Your task to perform on an android device: change timer sound Image 0: 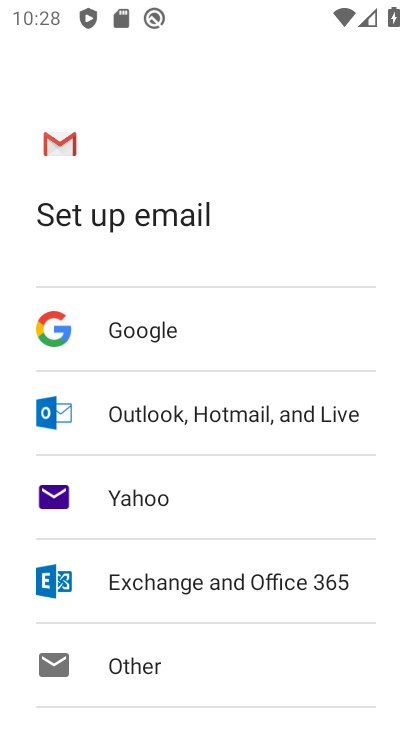
Step 0: press home button
Your task to perform on an android device: change timer sound Image 1: 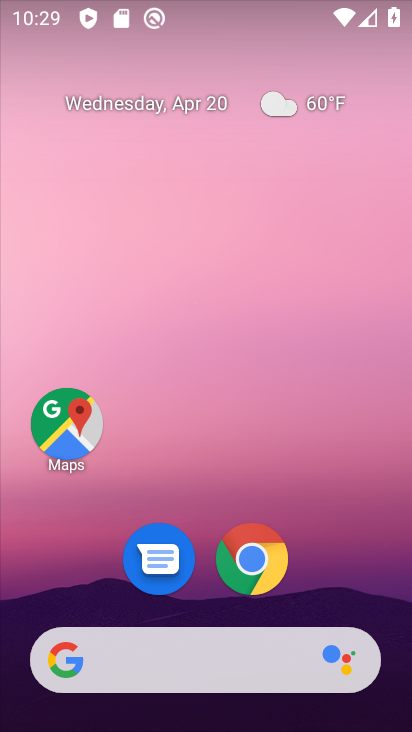
Step 1: drag from (208, 674) to (208, 129)
Your task to perform on an android device: change timer sound Image 2: 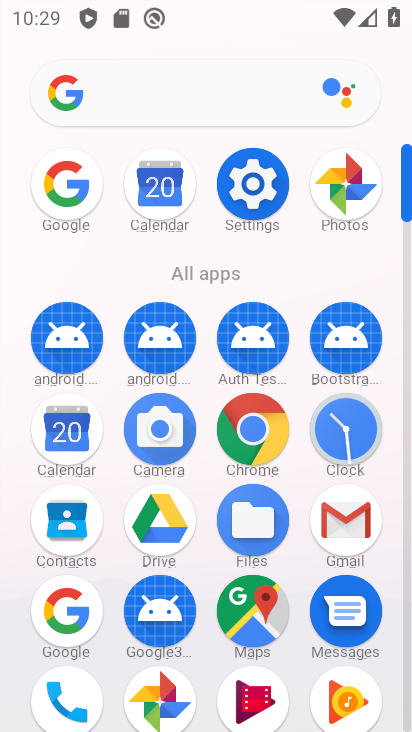
Step 2: click (361, 412)
Your task to perform on an android device: change timer sound Image 3: 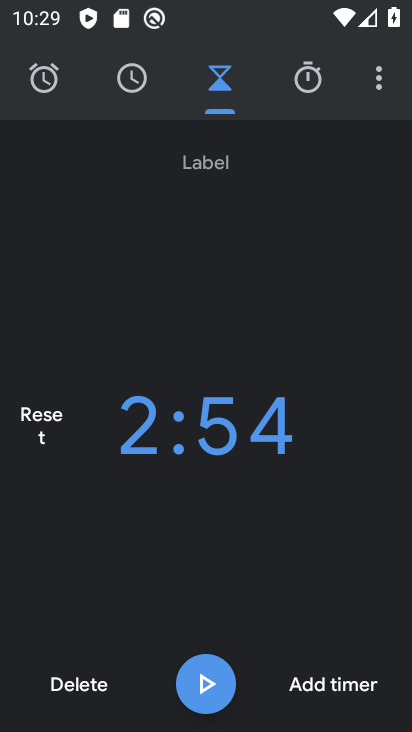
Step 3: click (379, 85)
Your task to perform on an android device: change timer sound Image 4: 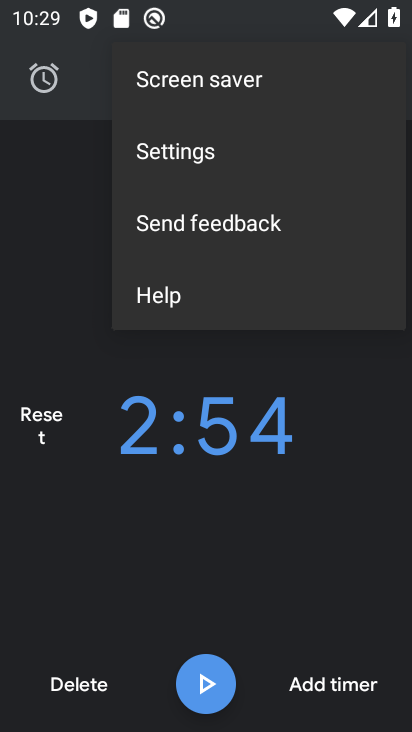
Step 4: click (172, 156)
Your task to perform on an android device: change timer sound Image 5: 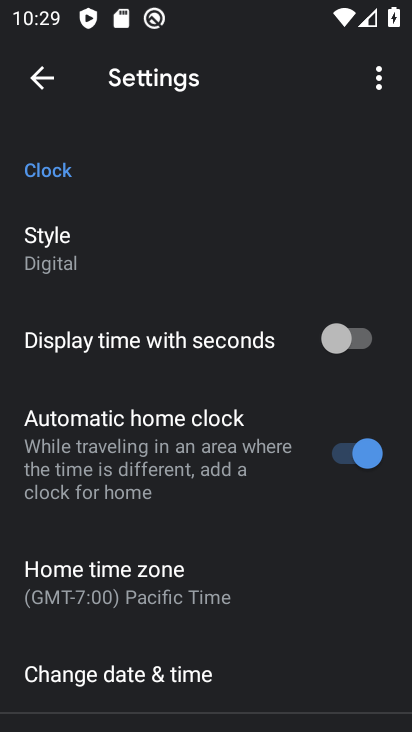
Step 5: drag from (91, 645) to (100, 225)
Your task to perform on an android device: change timer sound Image 6: 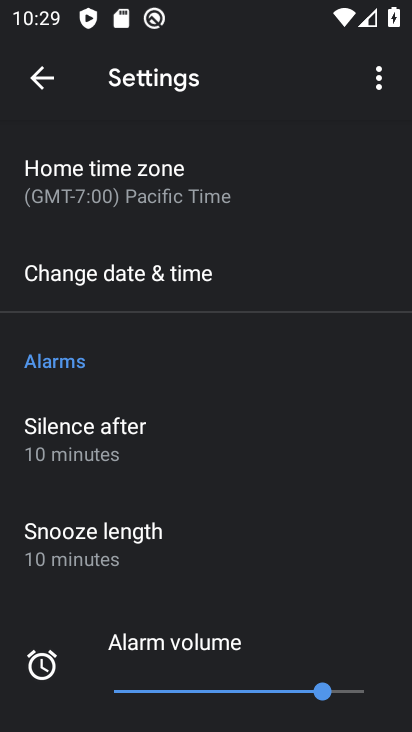
Step 6: drag from (168, 629) to (215, 203)
Your task to perform on an android device: change timer sound Image 7: 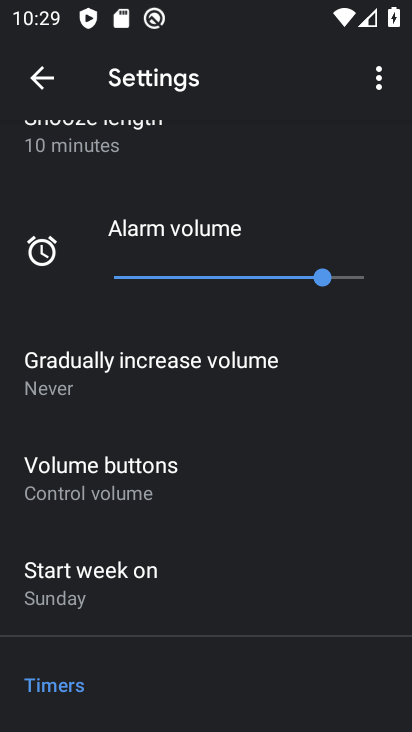
Step 7: drag from (189, 651) to (189, 340)
Your task to perform on an android device: change timer sound Image 8: 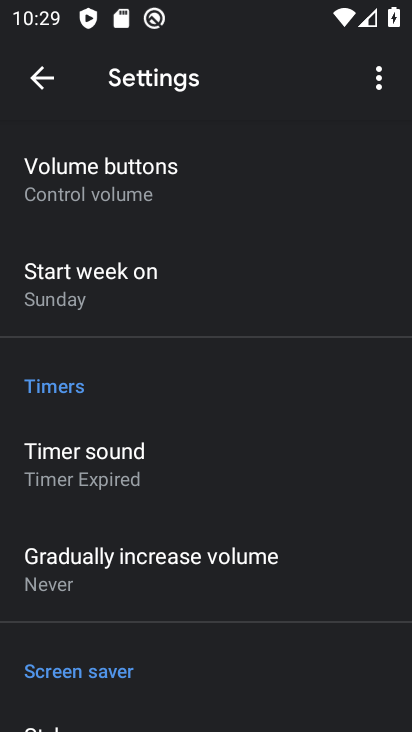
Step 8: click (89, 471)
Your task to perform on an android device: change timer sound Image 9: 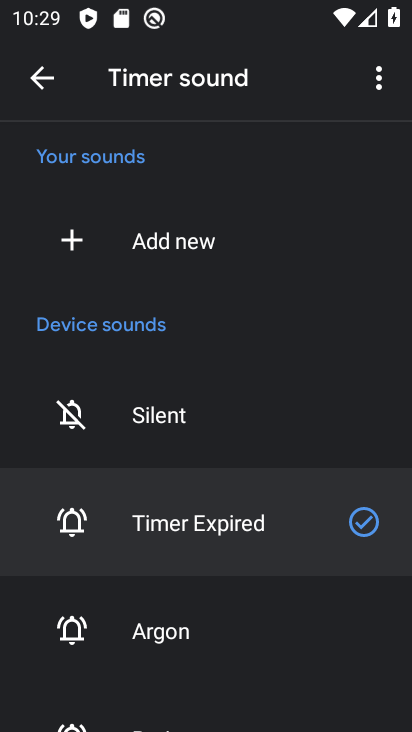
Step 9: click (78, 715)
Your task to perform on an android device: change timer sound Image 10: 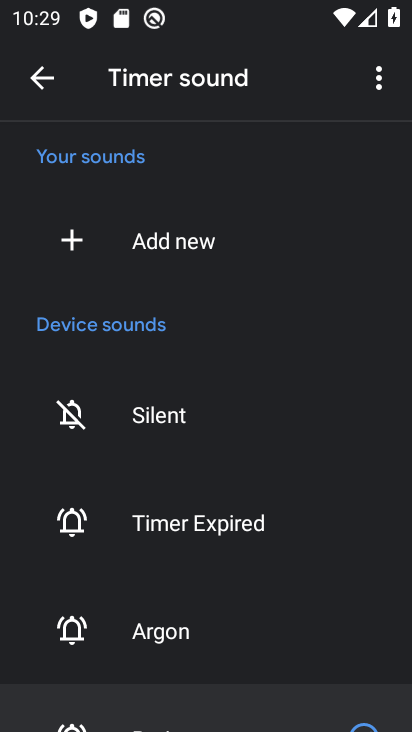
Step 10: task complete